Your task to perform on an android device: remove spam from my inbox in the gmail app Image 0: 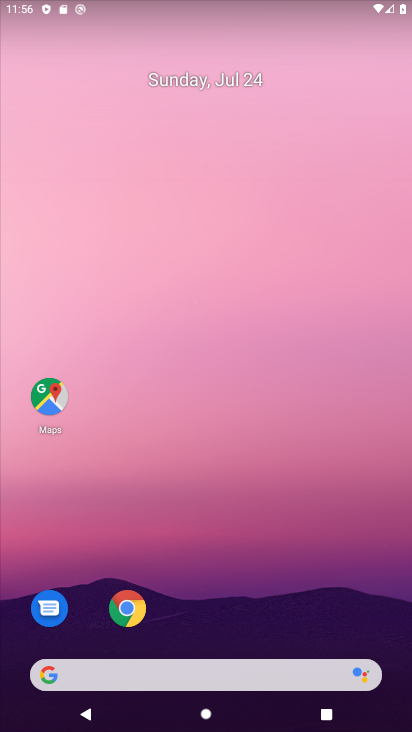
Step 0: drag from (237, 590) to (264, 170)
Your task to perform on an android device: remove spam from my inbox in the gmail app Image 1: 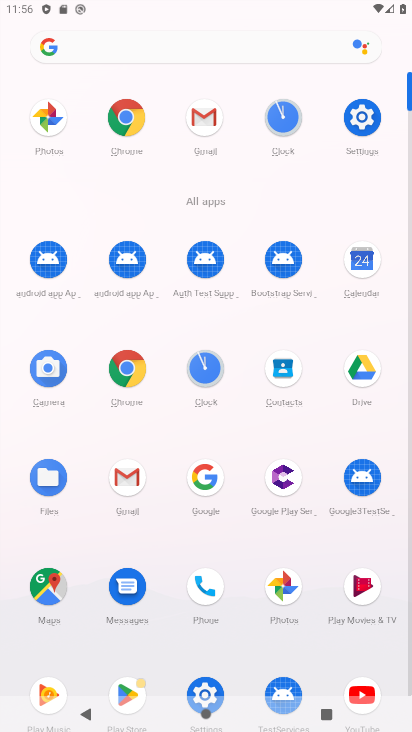
Step 1: click (127, 486)
Your task to perform on an android device: remove spam from my inbox in the gmail app Image 2: 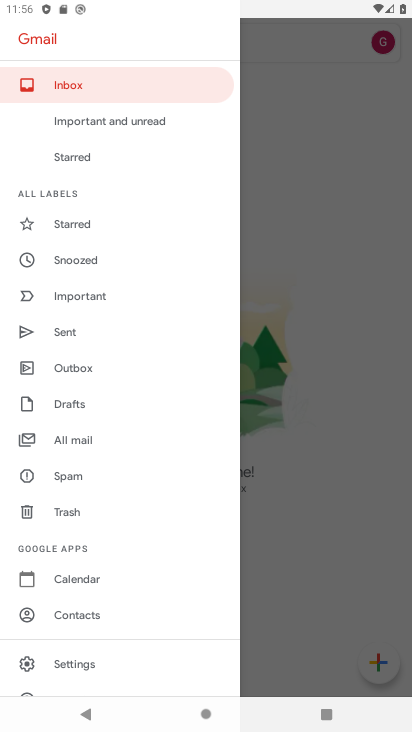
Step 2: click (65, 475)
Your task to perform on an android device: remove spam from my inbox in the gmail app Image 3: 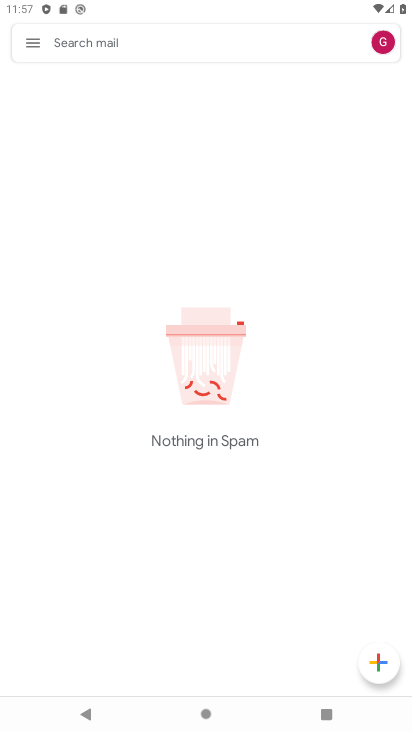
Step 3: task complete